Your task to perform on an android device: toggle priority inbox in the gmail app Image 0: 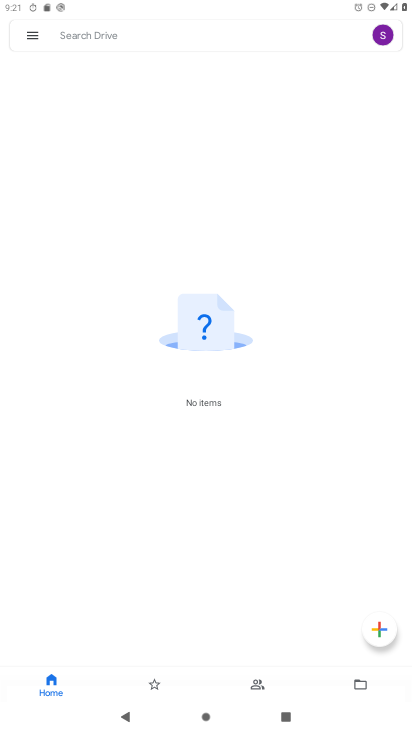
Step 0: press home button
Your task to perform on an android device: toggle priority inbox in the gmail app Image 1: 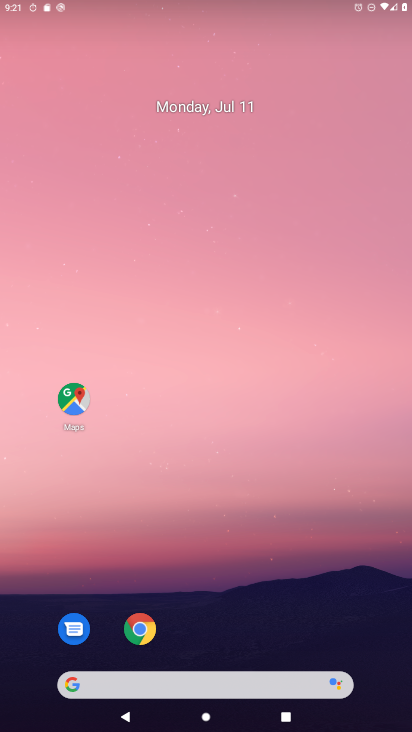
Step 1: drag from (216, 611) to (221, 85)
Your task to perform on an android device: toggle priority inbox in the gmail app Image 2: 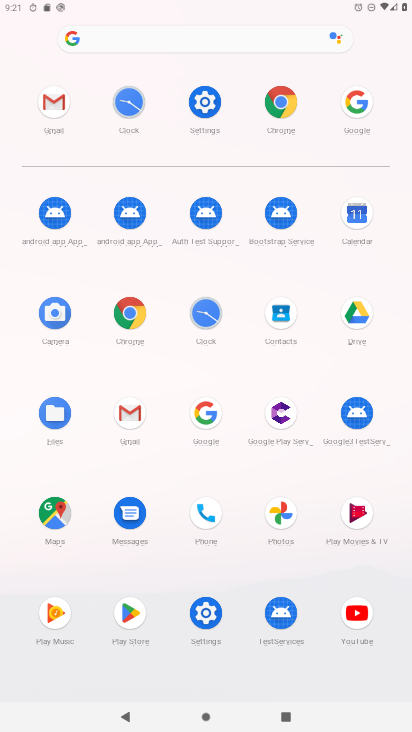
Step 2: click (55, 106)
Your task to perform on an android device: toggle priority inbox in the gmail app Image 3: 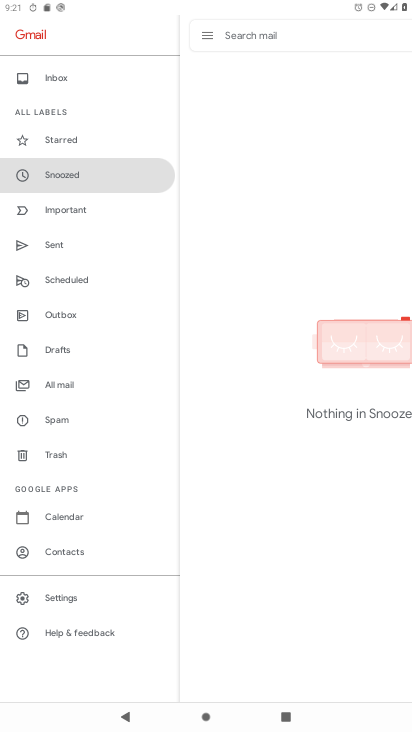
Step 3: click (63, 598)
Your task to perform on an android device: toggle priority inbox in the gmail app Image 4: 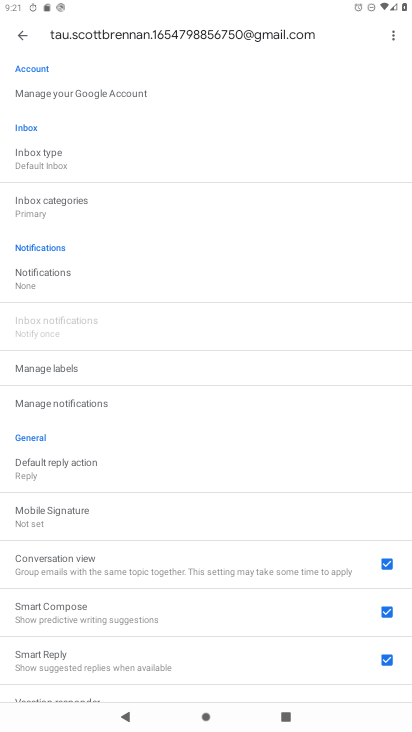
Step 4: click (47, 166)
Your task to perform on an android device: toggle priority inbox in the gmail app Image 5: 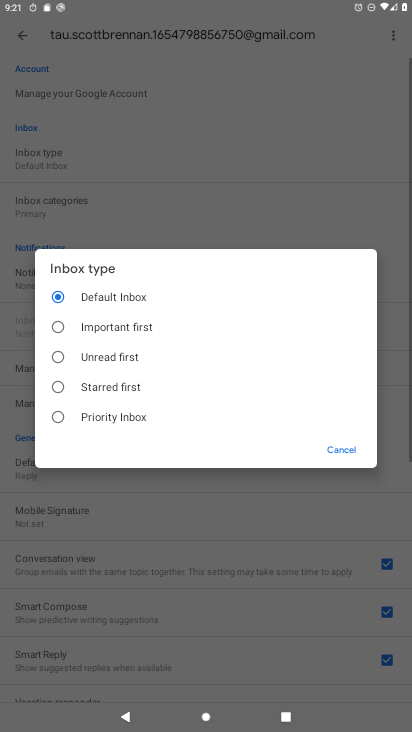
Step 5: click (60, 418)
Your task to perform on an android device: toggle priority inbox in the gmail app Image 6: 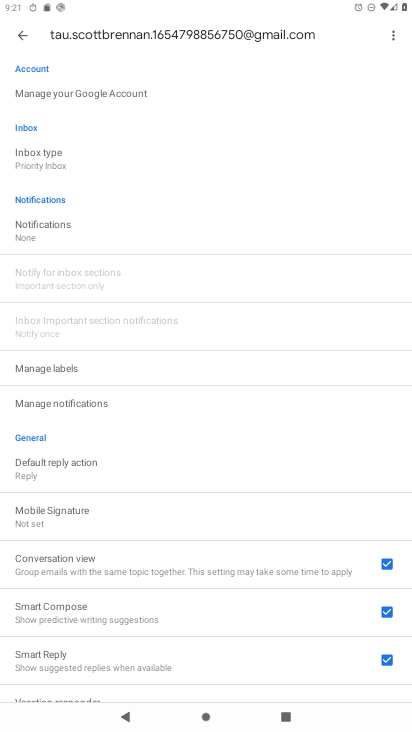
Step 6: task complete